Your task to perform on an android device: toggle location history Image 0: 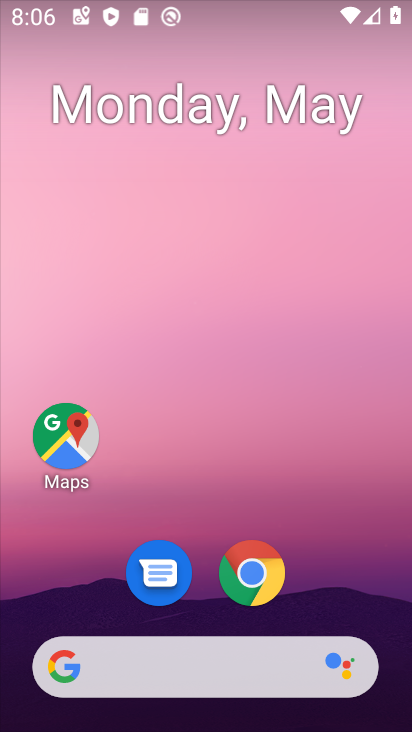
Step 0: drag from (371, 596) to (328, 65)
Your task to perform on an android device: toggle location history Image 1: 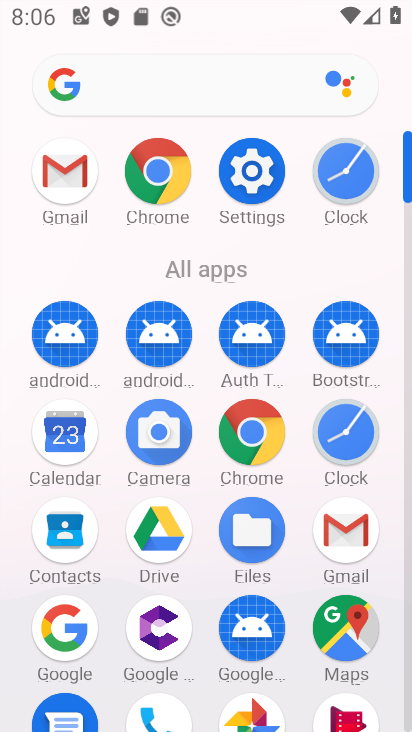
Step 1: click (244, 201)
Your task to perform on an android device: toggle location history Image 2: 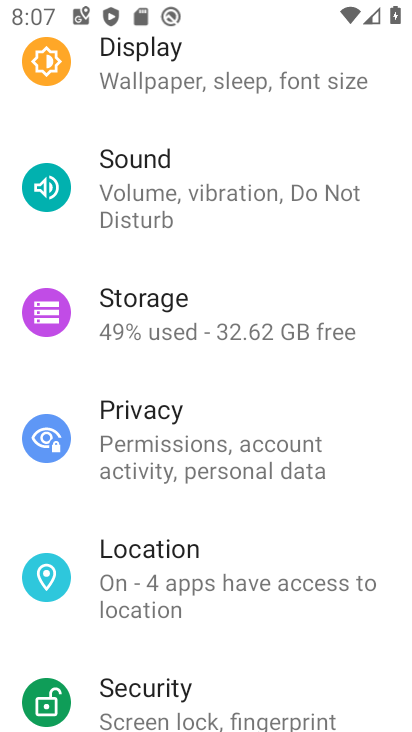
Step 2: click (176, 560)
Your task to perform on an android device: toggle location history Image 3: 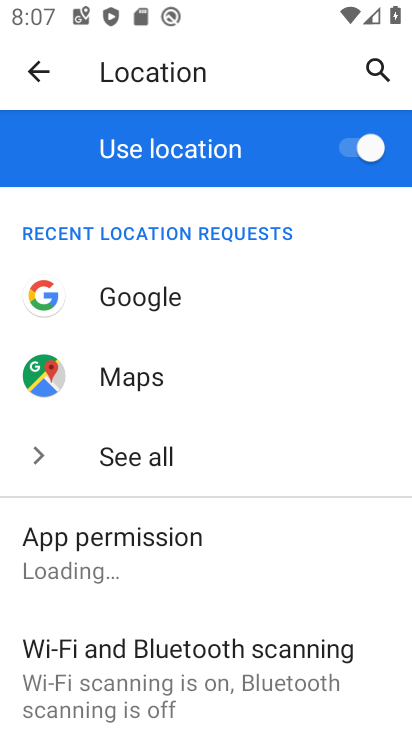
Step 3: drag from (224, 578) to (279, 144)
Your task to perform on an android device: toggle location history Image 4: 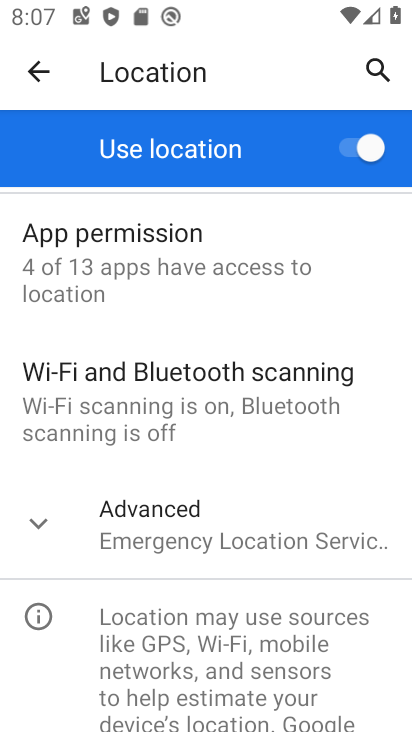
Step 4: click (219, 553)
Your task to perform on an android device: toggle location history Image 5: 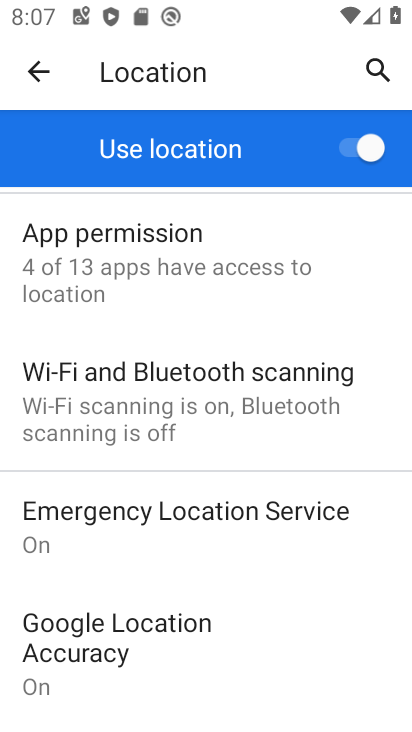
Step 5: drag from (190, 652) to (186, 438)
Your task to perform on an android device: toggle location history Image 6: 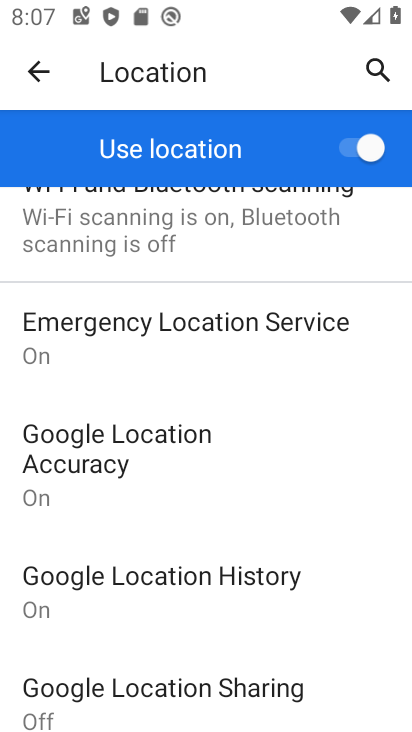
Step 6: click (186, 611)
Your task to perform on an android device: toggle location history Image 7: 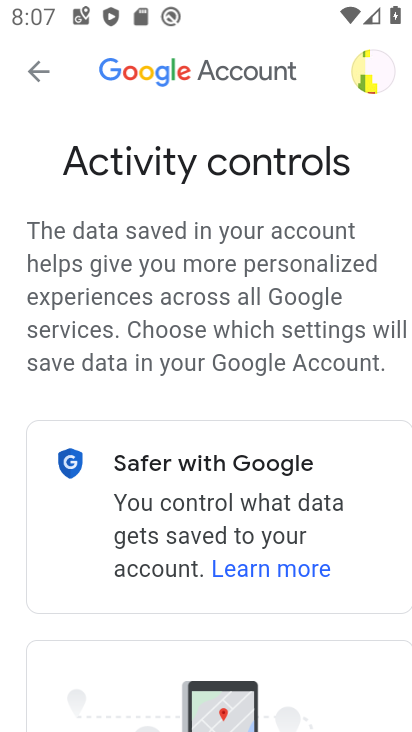
Step 7: task complete